Your task to perform on an android device: set default search engine in the chrome app Image 0: 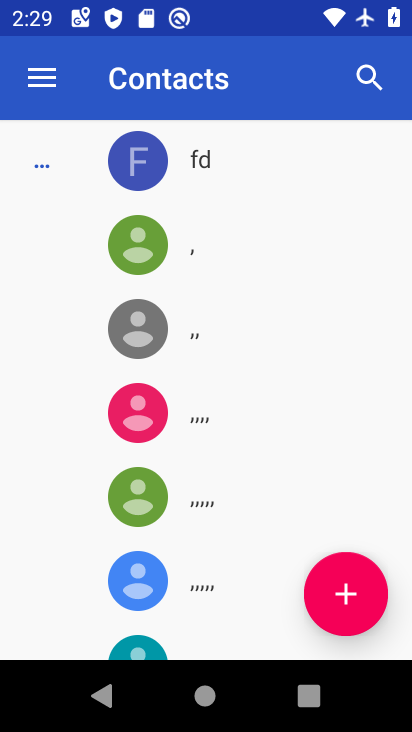
Step 0: press home button
Your task to perform on an android device: set default search engine in the chrome app Image 1: 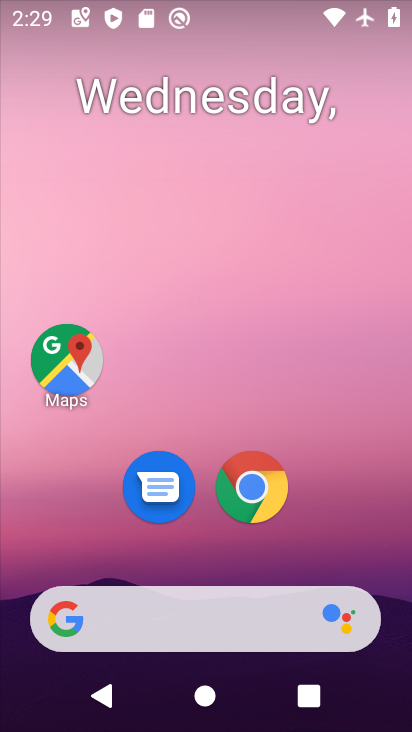
Step 1: drag from (371, 535) to (411, 117)
Your task to perform on an android device: set default search engine in the chrome app Image 2: 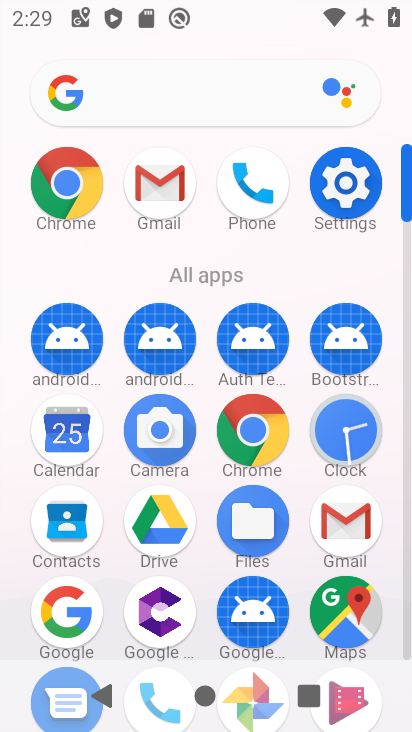
Step 2: click (71, 188)
Your task to perform on an android device: set default search engine in the chrome app Image 3: 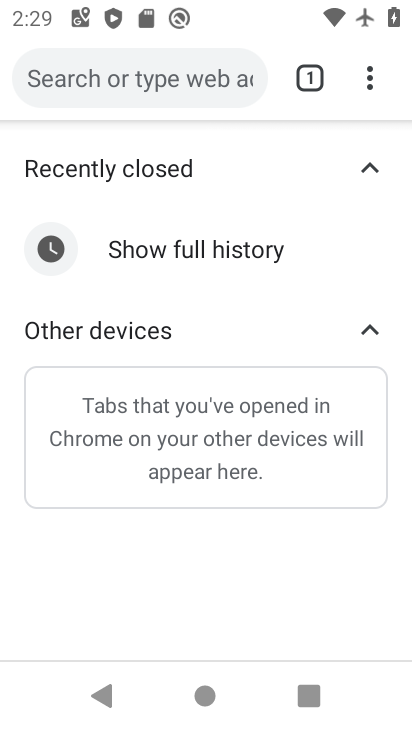
Step 3: drag from (370, 92) to (107, 566)
Your task to perform on an android device: set default search engine in the chrome app Image 4: 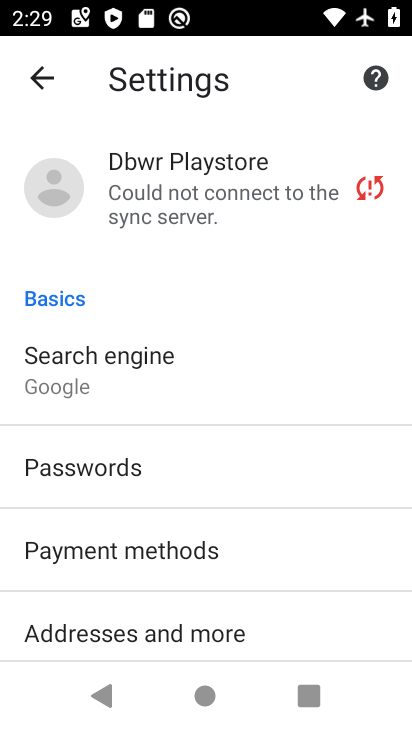
Step 4: click (92, 375)
Your task to perform on an android device: set default search engine in the chrome app Image 5: 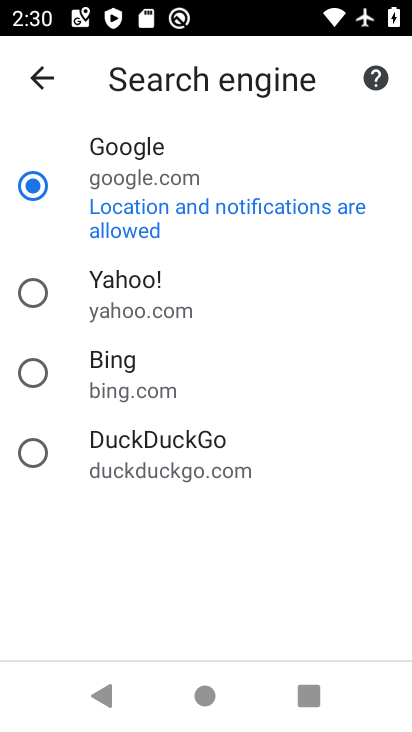
Step 5: task complete